Your task to perform on an android device: turn on notifications settings in the gmail app Image 0: 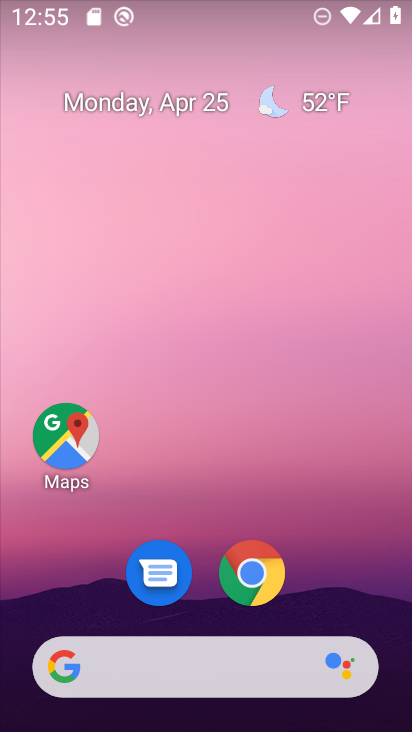
Step 0: drag from (222, 726) to (208, 138)
Your task to perform on an android device: turn on notifications settings in the gmail app Image 1: 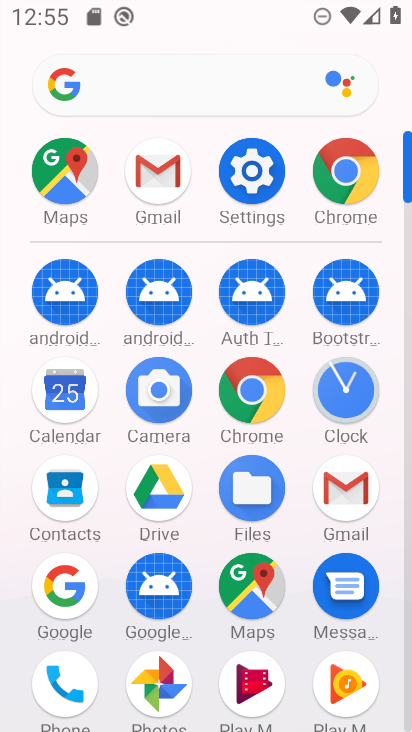
Step 1: click (345, 496)
Your task to perform on an android device: turn on notifications settings in the gmail app Image 2: 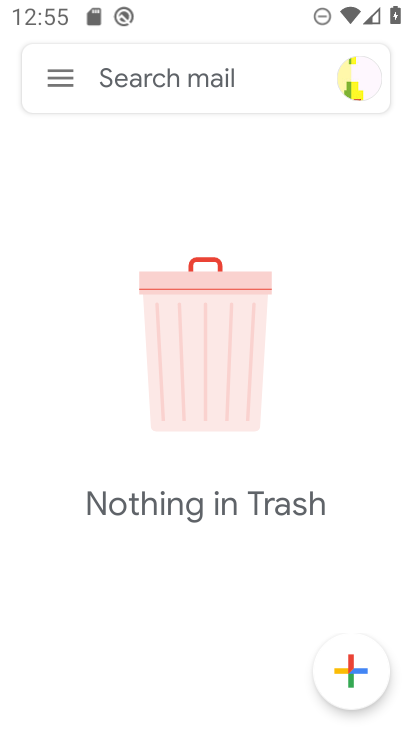
Step 2: click (64, 84)
Your task to perform on an android device: turn on notifications settings in the gmail app Image 3: 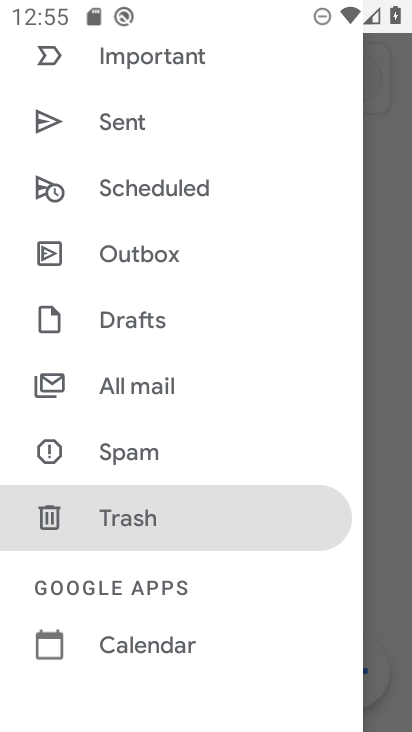
Step 3: drag from (156, 636) to (143, 248)
Your task to perform on an android device: turn on notifications settings in the gmail app Image 4: 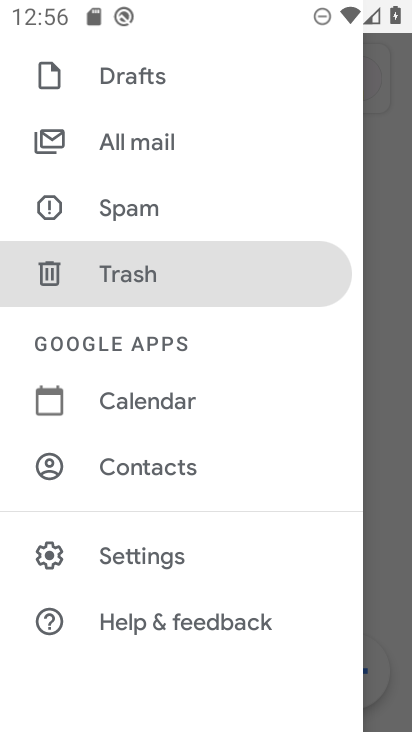
Step 4: click (155, 553)
Your task to perform on an android device: turn on notifications settings in the gmail app Image 5: 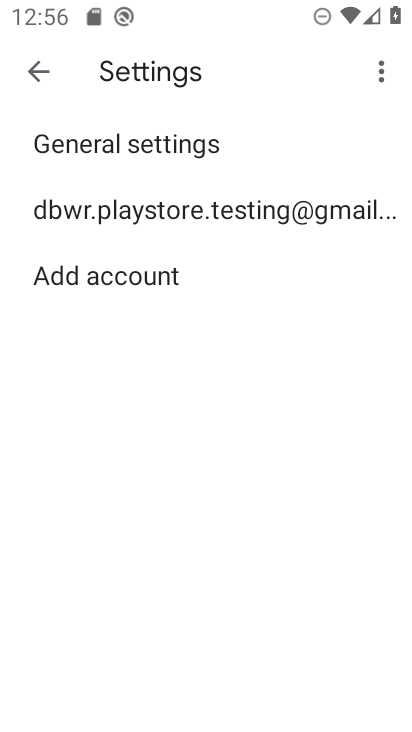
Step 5: click (142, 206)
Your task to perform on an android device: turn on notifications settings in the gmail app Image 6: 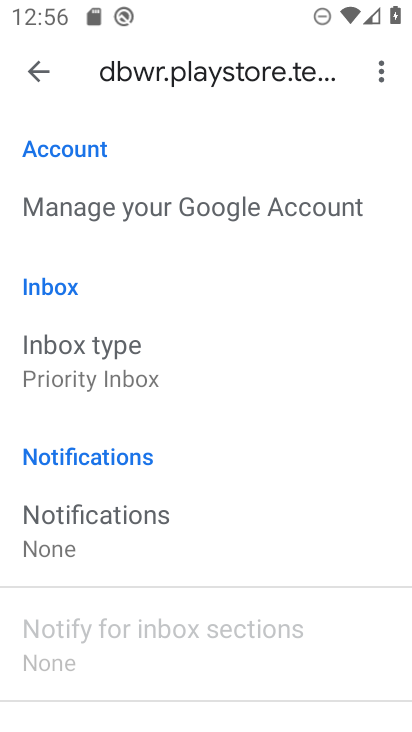
Step 6: click (65, 521)
Your task to perform on an android device: turn on notifications settings in the gmail app Image 7: 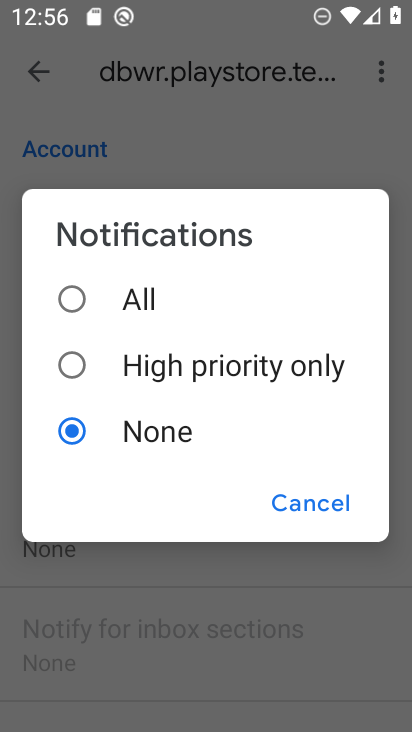
Step 7: click (72, 300)
Your task to perform on an android device: turn on notifications settings in the gmail app Image 8: 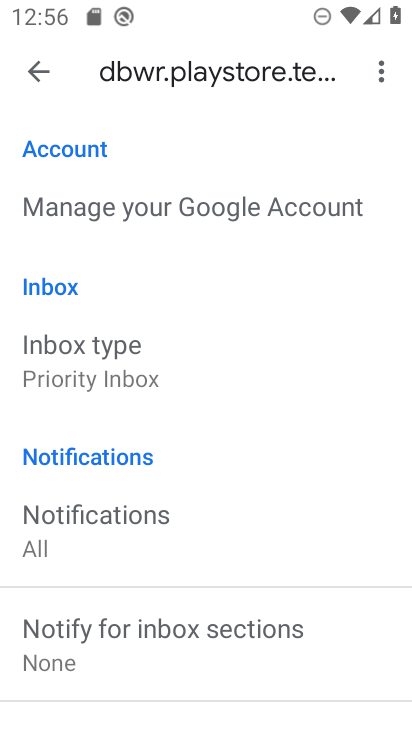
Step 8: task complete